Your task to perform on an android device: empty trash in google photos Image 0: 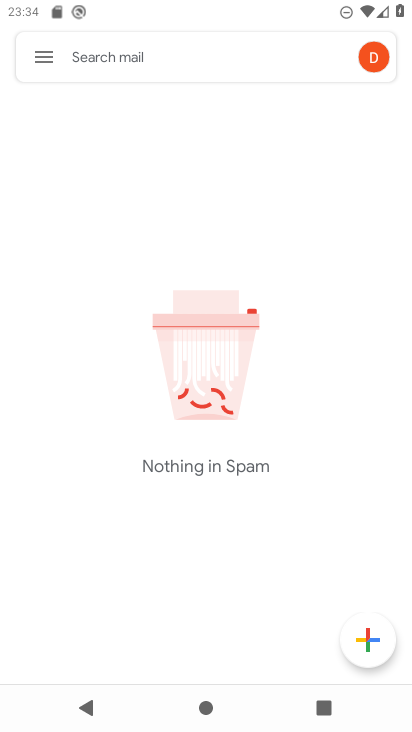
Step 0: press home button
Your task to perform on an android device: empty trash in google photos Image 1: 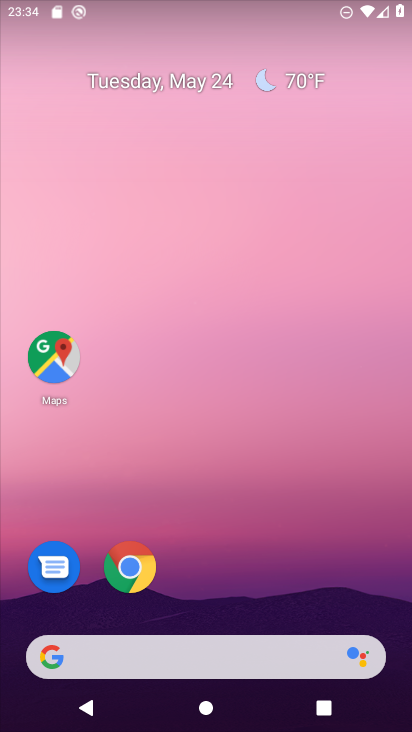
Step 1: drag from (264, 569) to (59, 6)
Your task to perform on an android device: empty trash in google photos Image 2: 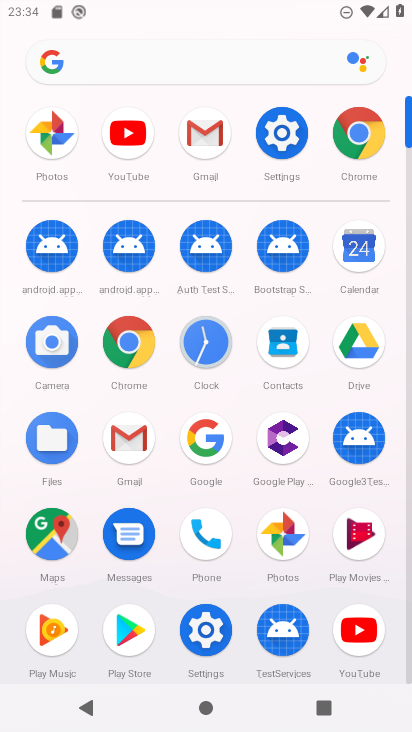
Step 2: click (280, 544)
Your task to perform on an android device: empty trash in google photos Image 3: 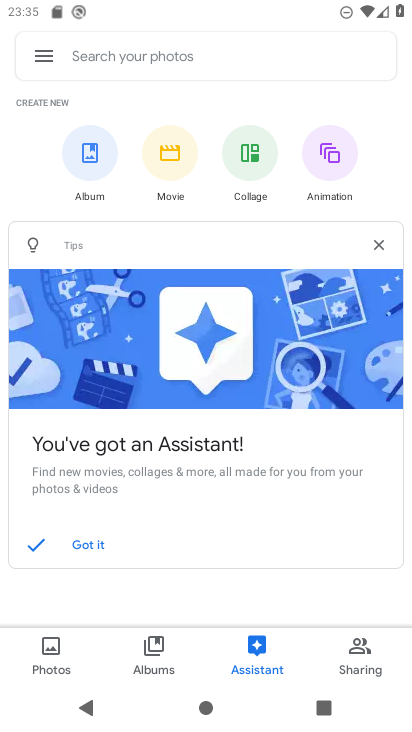
Step 3: click (44, 55)
Your task to perform on an android device: empty trash in google photos Image 4: 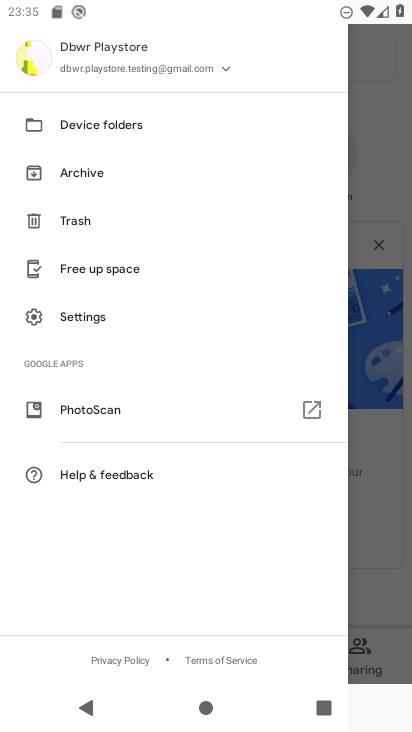
Step 4: click (87, 217)
Your task to perform on an android device: empty trash in google photos Image 5: 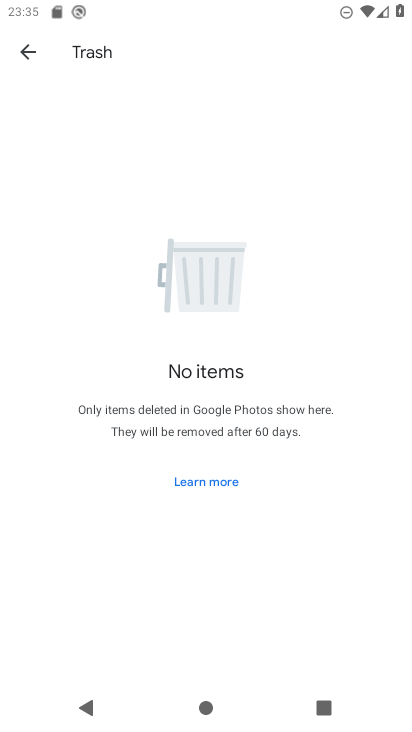
Step 5: task complete